Your task to perform on an android device: Open internet settings Image 0: 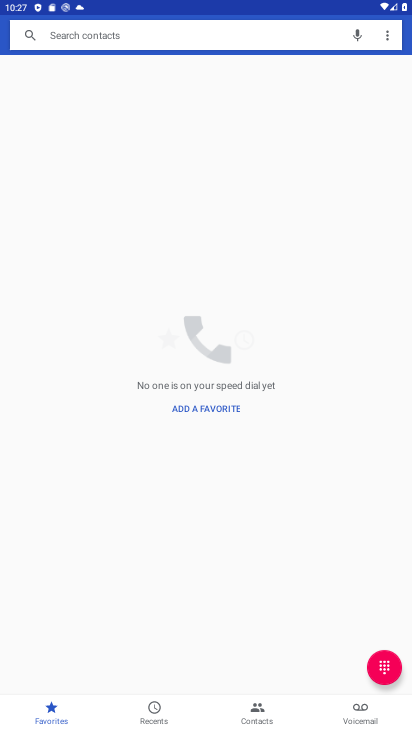
Step 0: click (237, 70)
Your task to perform on an android device: Open internet settings Image 1: 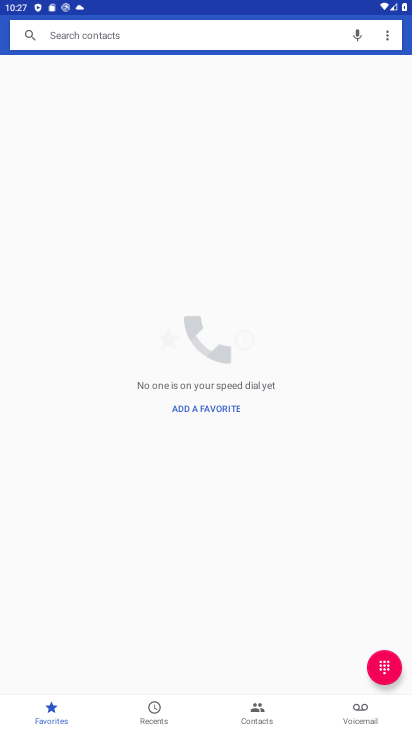
Step 1: press home button
Your task to perform on an android device: Open internet settings Image 2: 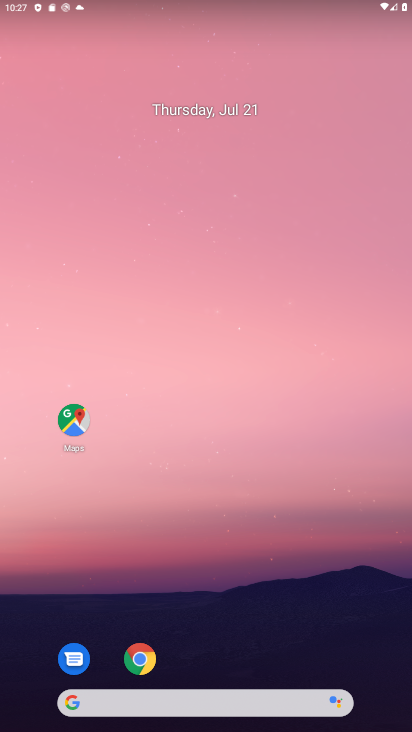
Step 2: drag from (221, 662) to (274, 62)
Your task to perform on an android device: Open internet settings Image 3: 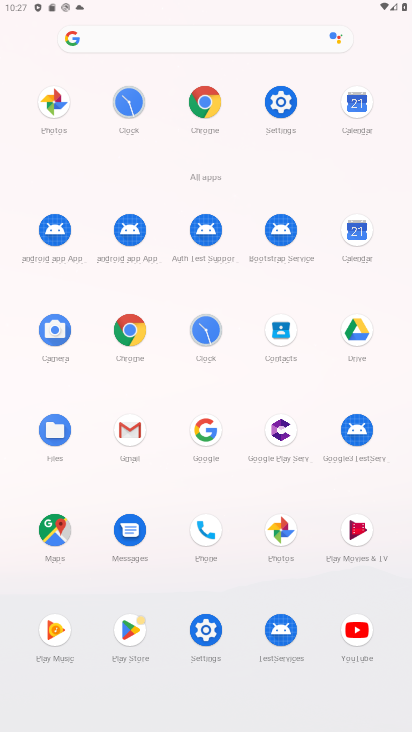
Step 3: click (199, 644)
Your task to perform on an android device: Open internet settings Image 4: 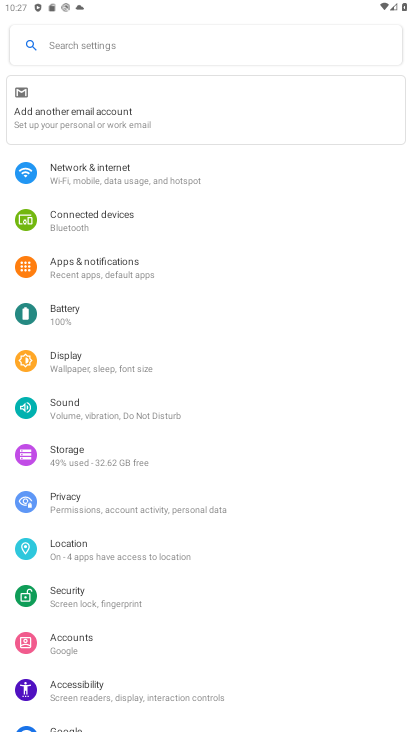
Step 4: click (187, 161)
Your task to perform on an android device: Open internet settings Image 5: 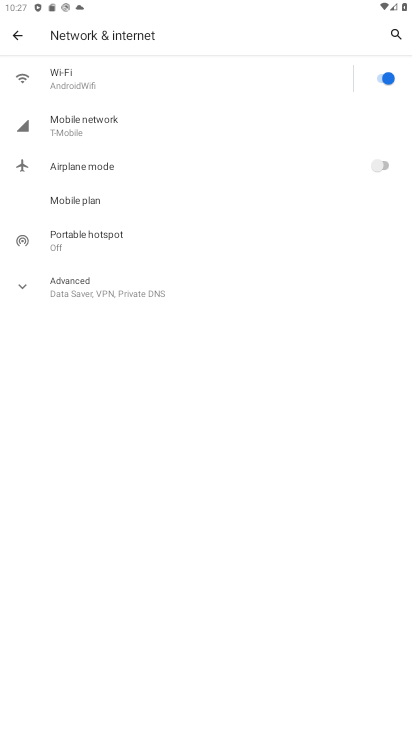
Step 5: task complete